Your task to perform on an android device: turn off priority inbox in the gmail app Image 0: 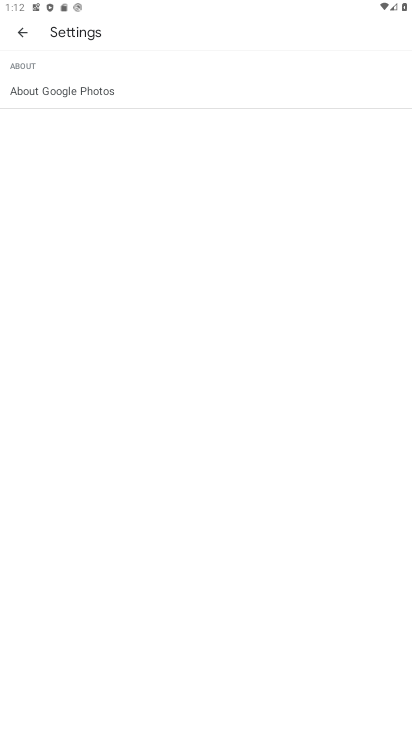
Step 0: press home button
Your task to perform on an android device: turn off priority inbox in the gmail app Image 1: 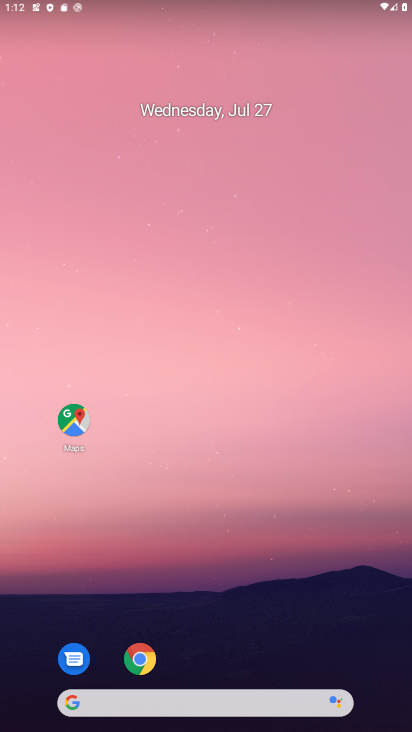
Step 1: drag from (289, 645) to (282, 100)
Your task to perform on an android device: turn off priority inbox in the gmail app Image 2: 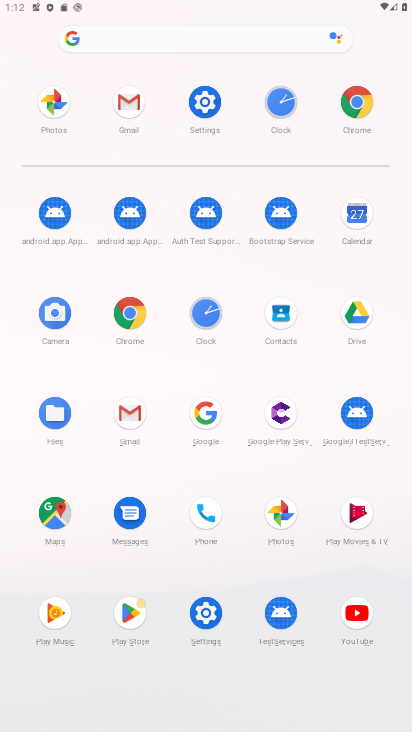
Step 2: click (127, 100)
Your task to perform on an android device: turn off priority inbox in the gmail app Image 3: 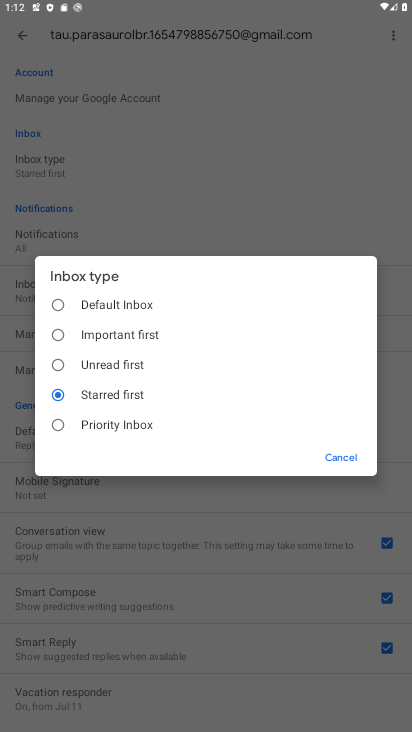
Step 3: click (342, 458)
Your task to perform on an android device: turn off priority inbox in the gmail app Image 4: 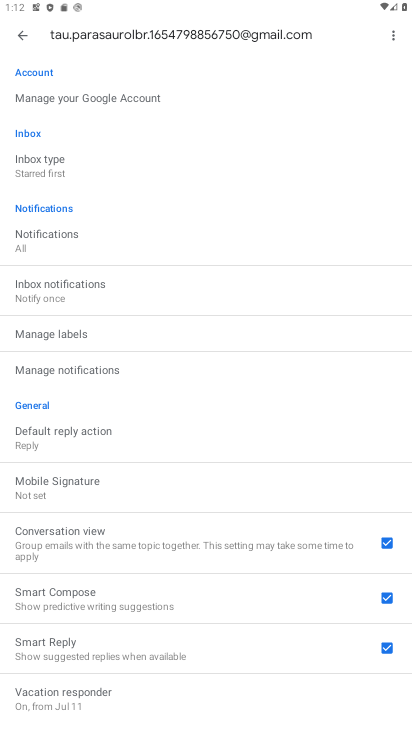
Step 4: drag from (103, 96) to (170, 463)
Your task to perform on an android device: turn off priority inbox in the gmail app Image 5: 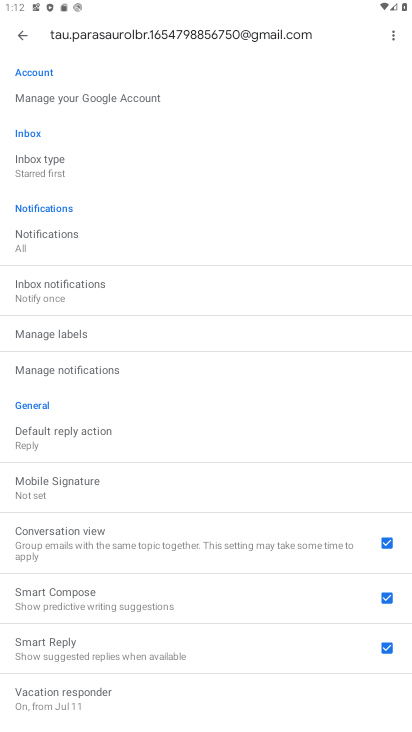
Step 5: click (58, 172)
Your task to perform on an android device: turn off priority inbox in the gmail app Image 6: 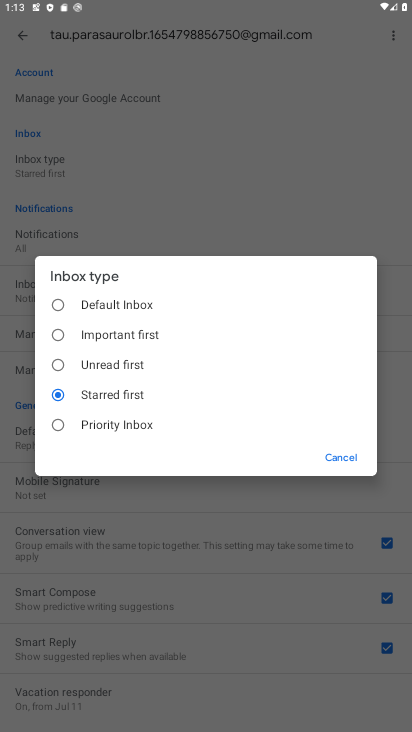
Step 6: task complete